Your task to perform on an android device: Go to battery settings Image 0: 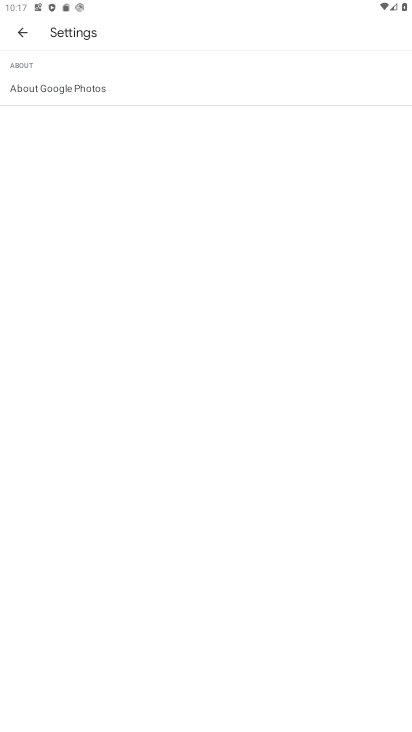
Step 0: drag from (384, 696) to (354, 113)
Your task to perform on an android device: Go to battery settings Image 1: 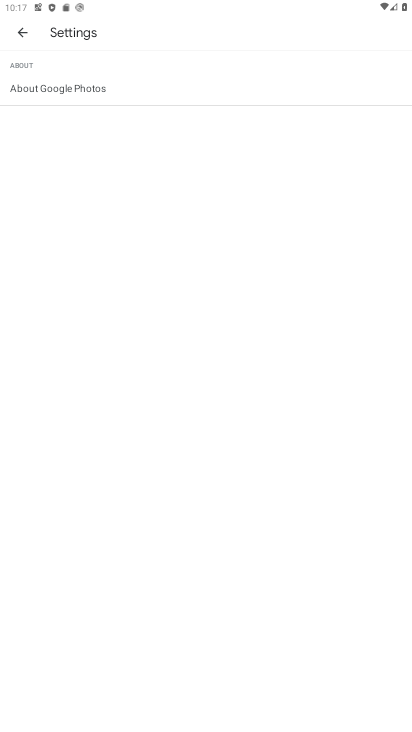
Step 1: press home button
Your task to perform on an android device: Go to battery settings Image 2: 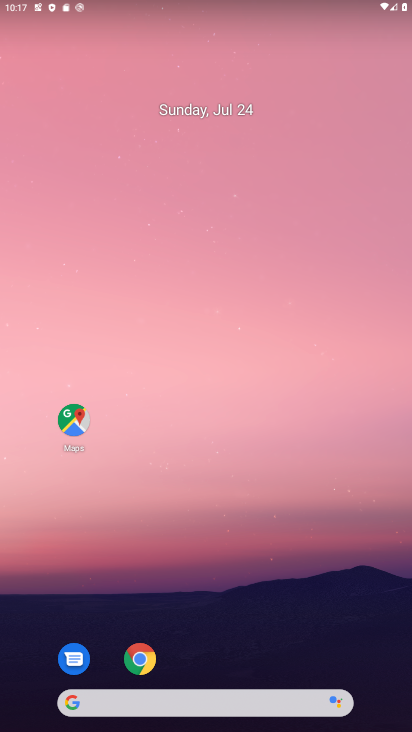
Step 2: drag from (379, 689) to (334, 133)
Your task to perform on an android device: Go to battery settings Image 3: 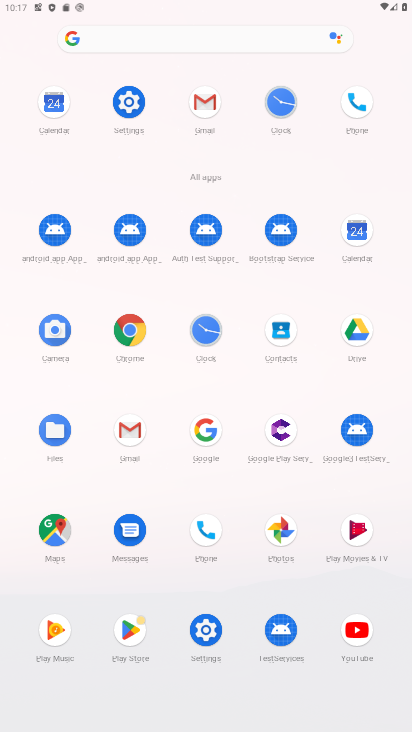
Step 3: click (194, 632)
Your task to perform on an android device: Go to battery settings Image 4: 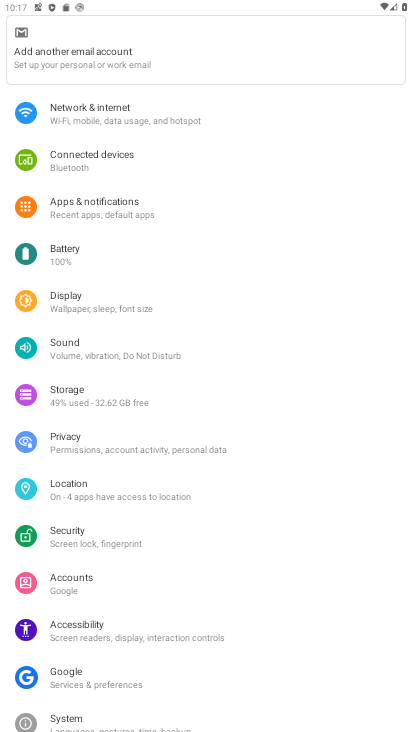
Step 4: click (82, 249)
Your task to perform on an android device: Go to battery settings Image 5: 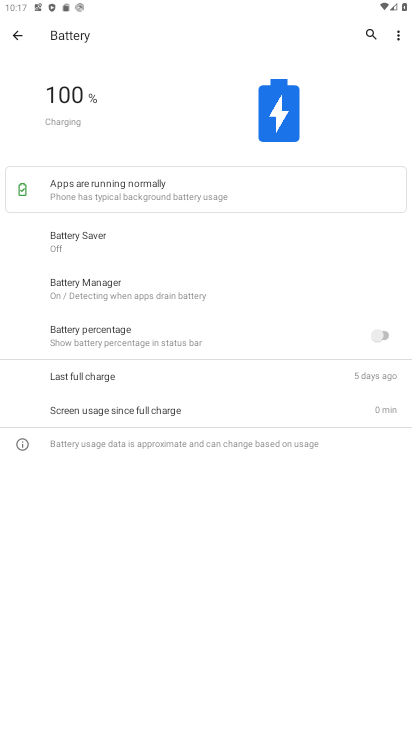
Step 5: task complete